Your task to perform on an android device: Find coffee shops on Maps Image 0: 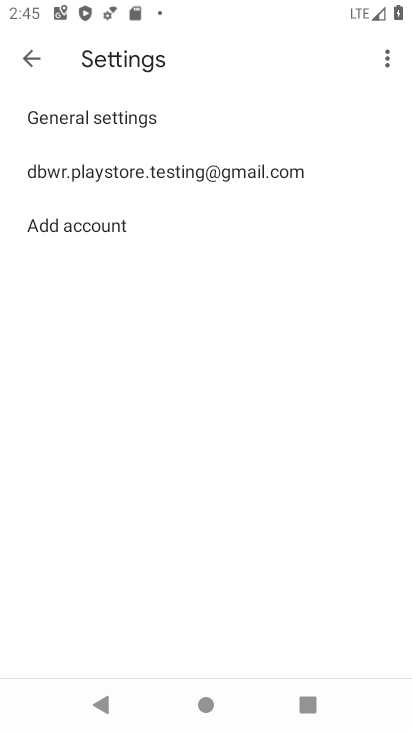
Step 0: press home button
Your task to perform on an android device: Find coffee shops on Maps Image 1: 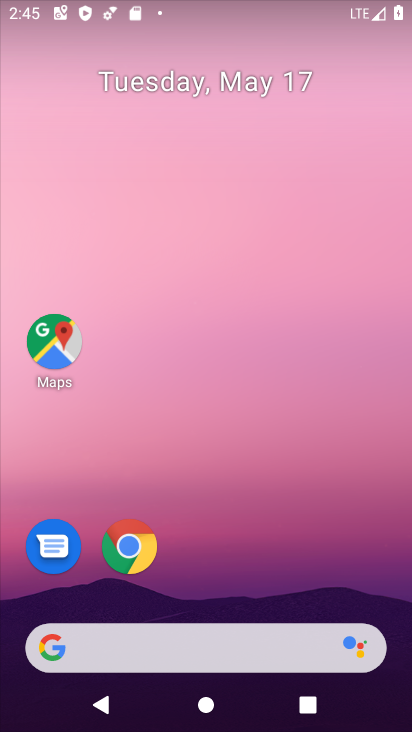
Step 1: drag from (216, 590) to (225, 539)
Your task to perform on an android device: Find coffee shops on Maps Image 2: 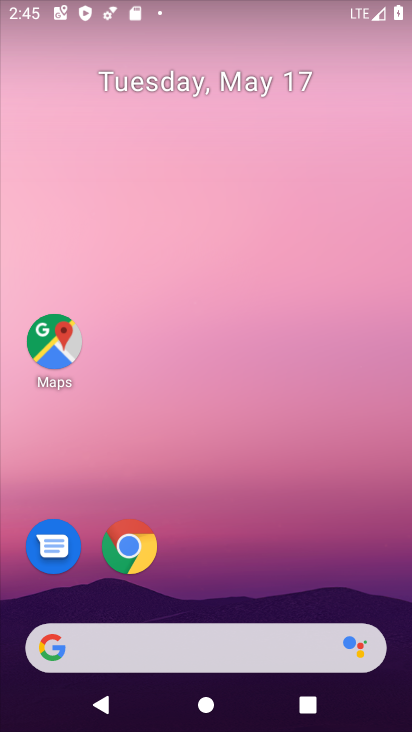
Step 2: click (62, 354)
Your task to perform on an android device: Find coffee shops on Maps Image 3: 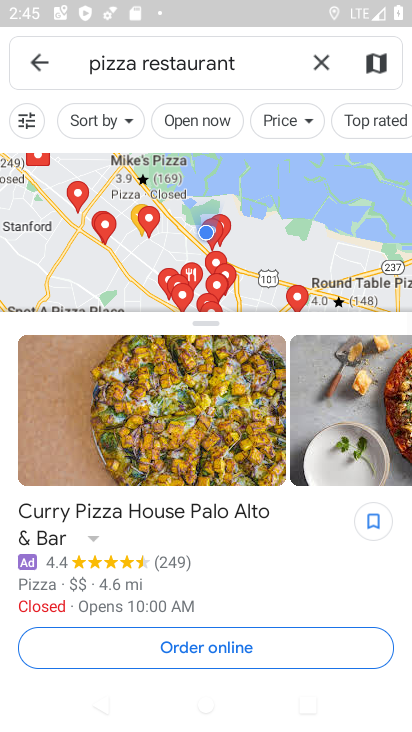
Step 3: click (300, 56)
Your task to perform on an android device: Find coffee shops on Maps Image 4: 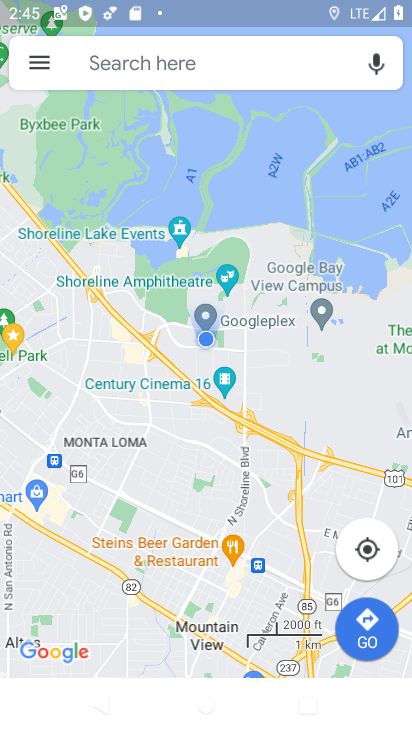
Step 4: click (300, 62)
Your task to perform on an android device: Find coffee shops on Maps Image 5: 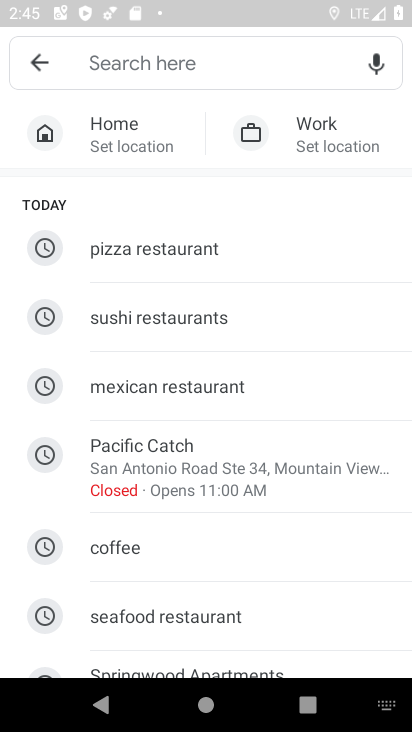
Step 5: type " coffee shops "
Your task to perform on an android device: Find coffee shops on Maps Image 6: 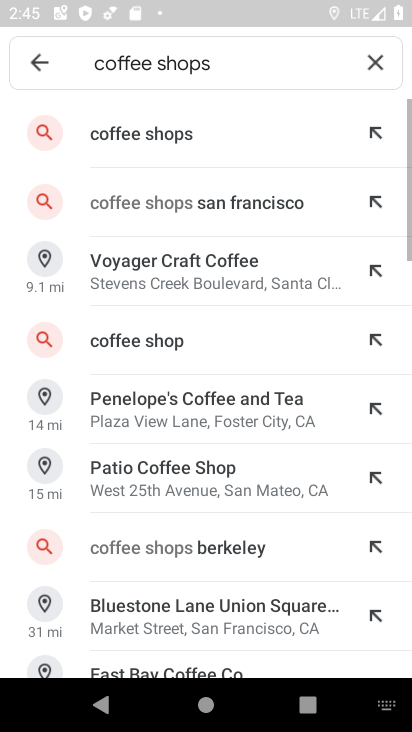
Step 6: click (201, 118)
Your task to perform on an android device: Find coffee shops on Maps Image 7: 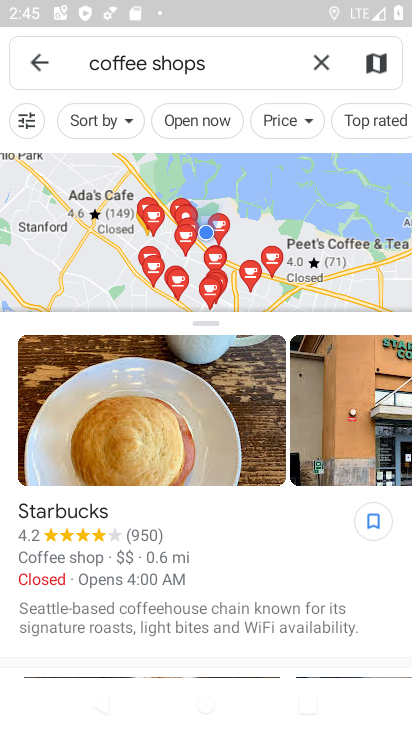
Step 7: task complete